Your task to perform on an android device: Search for hotels in Seattle Image 0: 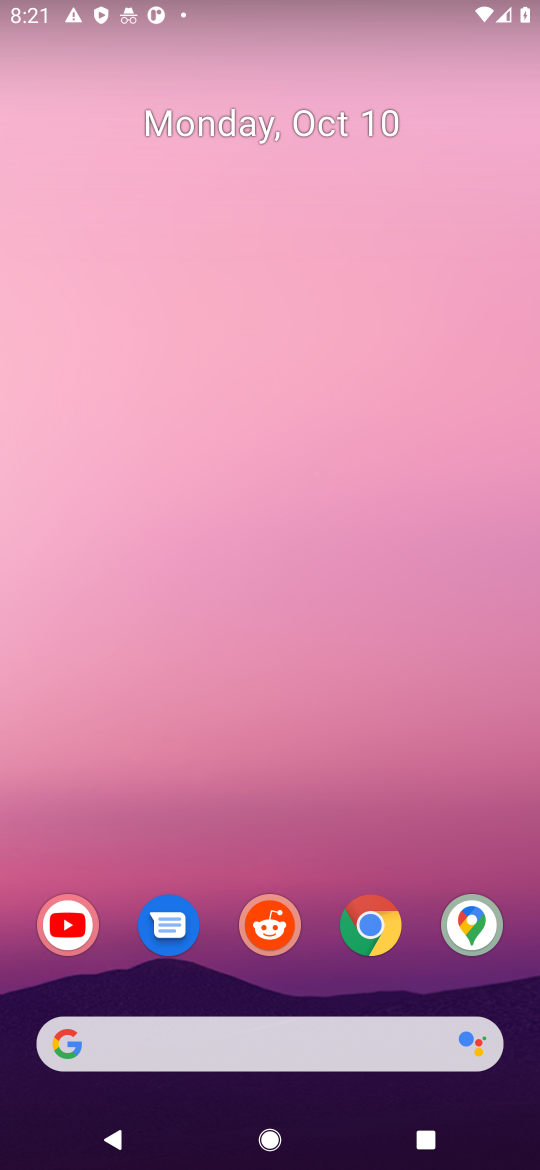
Step 0: drag from (330, 1000) to (332, 146)
Your task to perform on an android device: Search for hotels in Seattle Image 1: 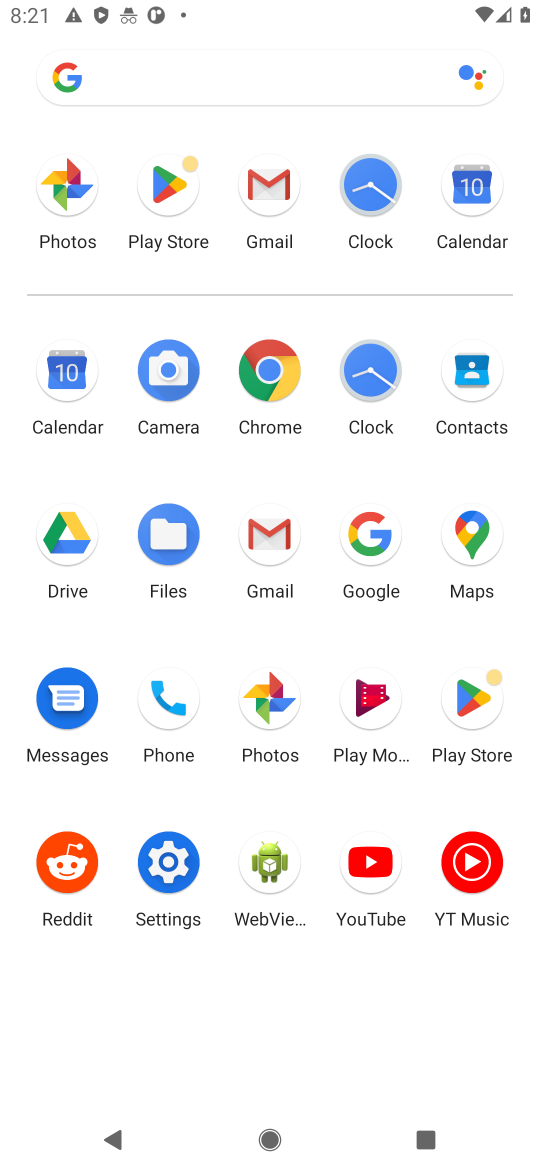
Step 1: click (267, 371)
Your task to perform on an android device: Search for hotels in Seattle Image 2: 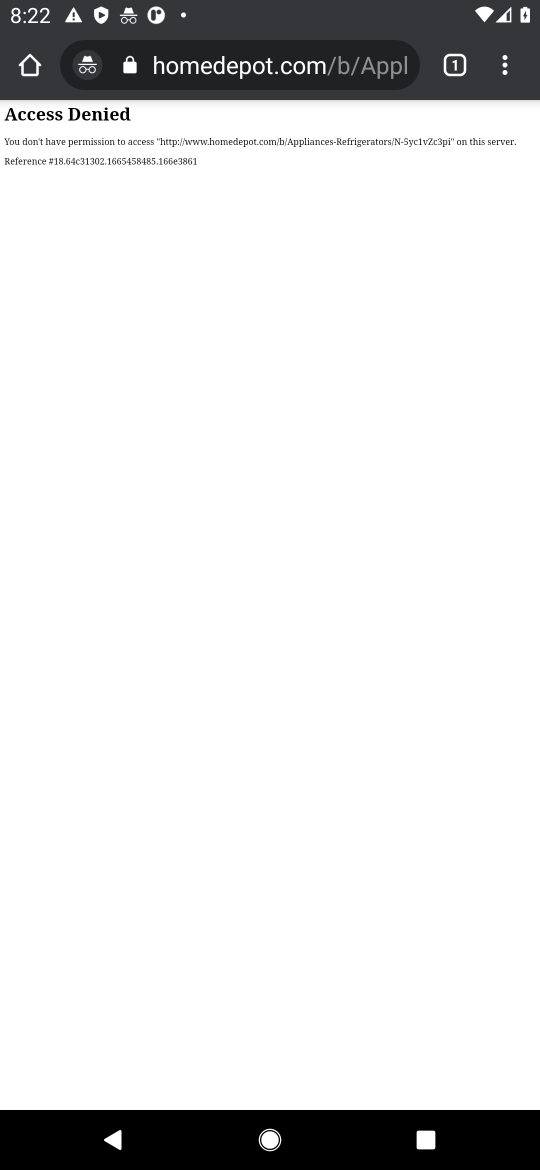
Step 2: click (283, 63)
Your task to perform on an android device: Search for hotels in Seattle Image 3: 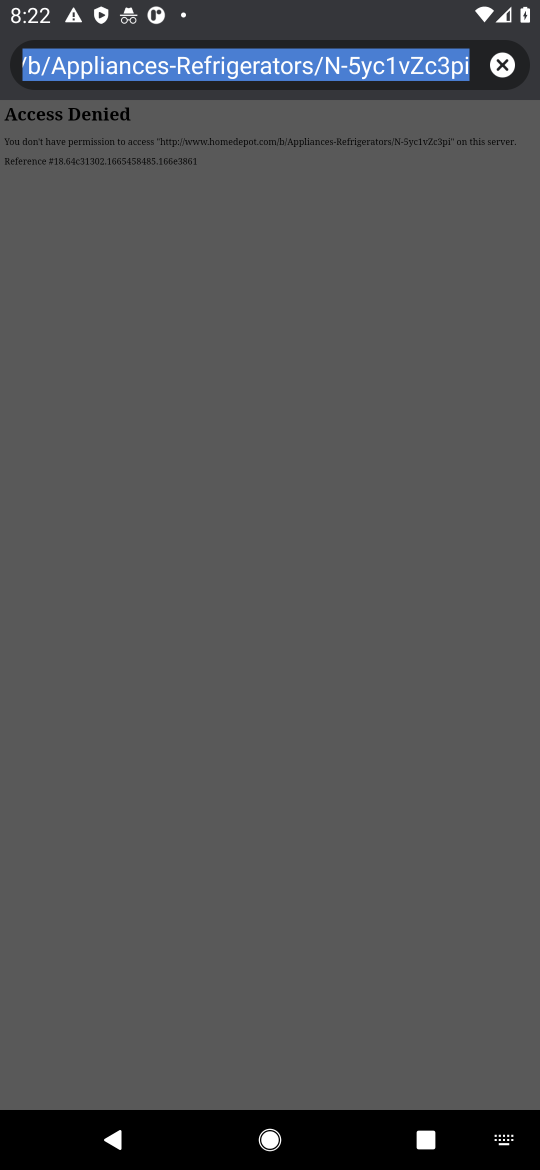
Step 3: type "hotels in Seattle"
Your task to perform on an android device: Search for hotels in Seattle Image 4: 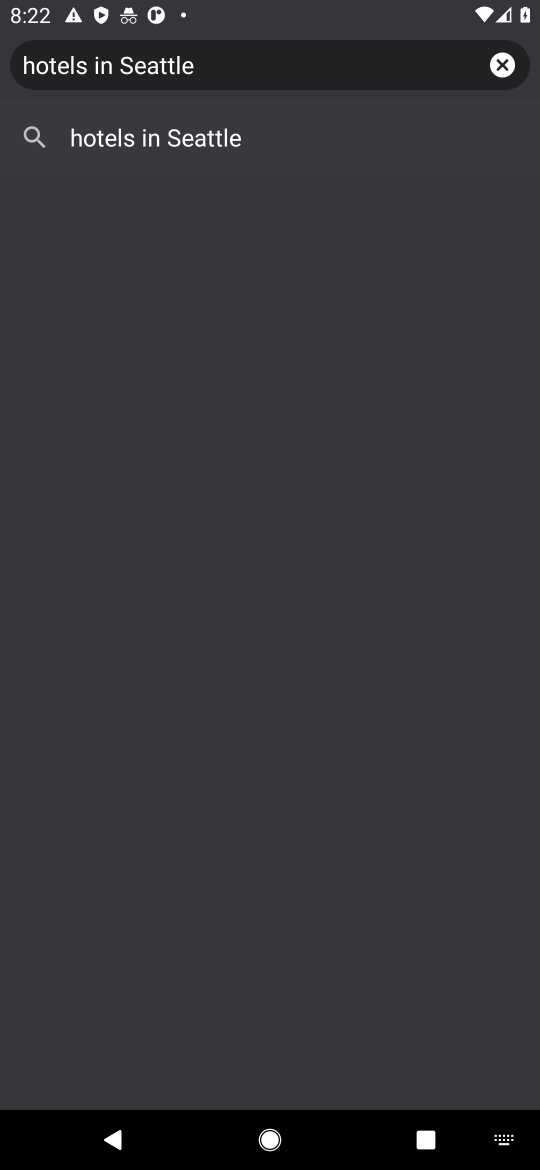
Step 4: press enter
Your task to perform on an android device: Search for hotels in Seattle Image 5: 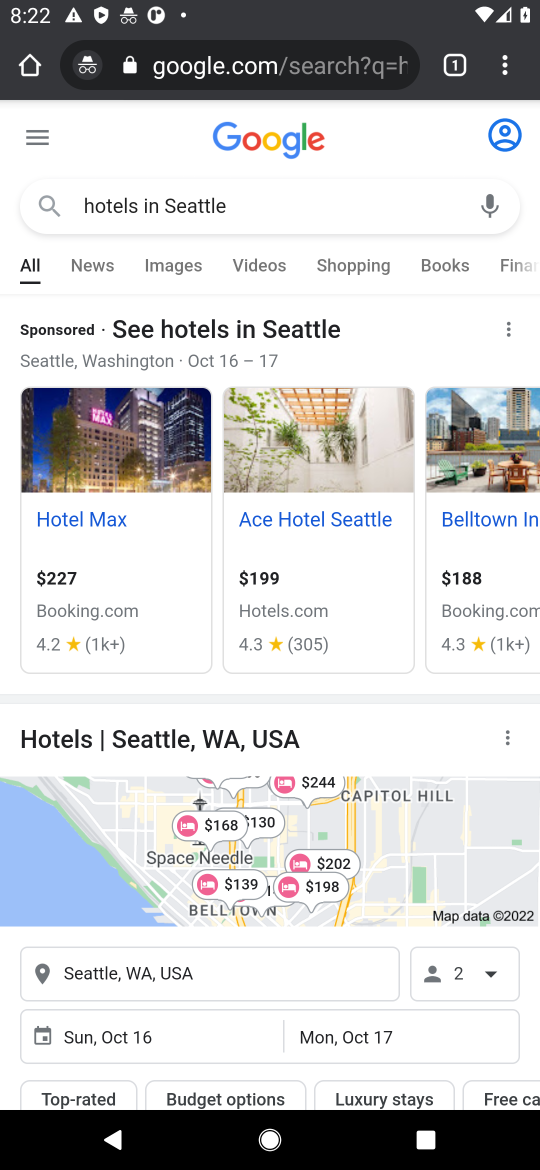
Step 5: task complete